Your task to perform on an android device: Open network settings Image 0: 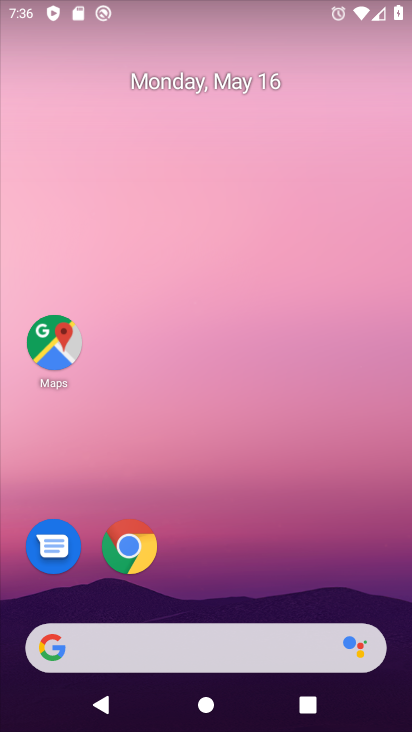
Step 0: drag from (222, 560) to (241, 10)
Your task to perform on an android device: Open network settings Image 1: 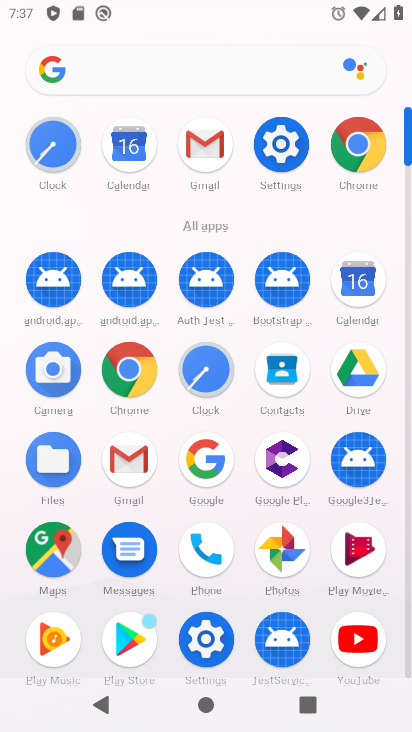
Step 1: click (267, 146)
Your task to perform on an android device: Open network settings Image 2: 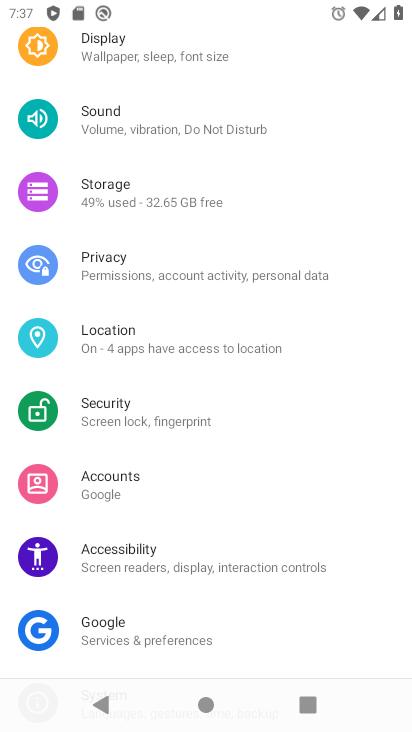
Step 2: drag from (360, 138) to (314, 573)
Your task to perform on an android device: Open network settings Image 3: 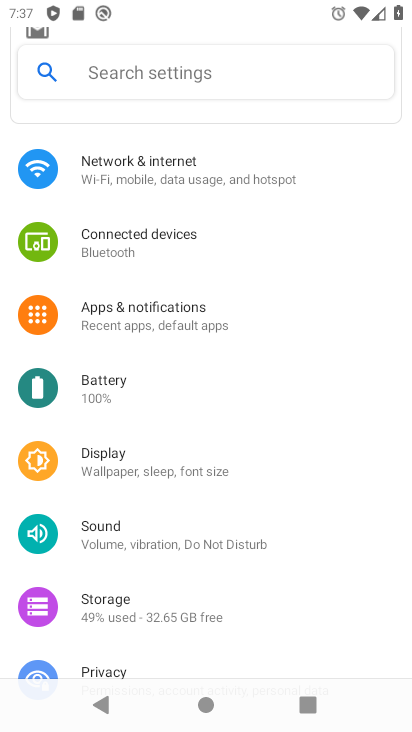
Step 3: click (240, 185)
Your task to perform on an android device: Open network settings Image 4: 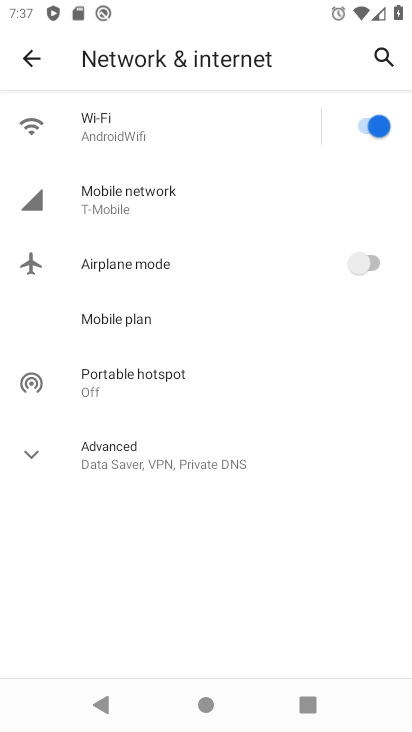
Step 4: task complete